Your task to perform on an android device: open app "LinkedIn" (install if not already installed) Image 0: 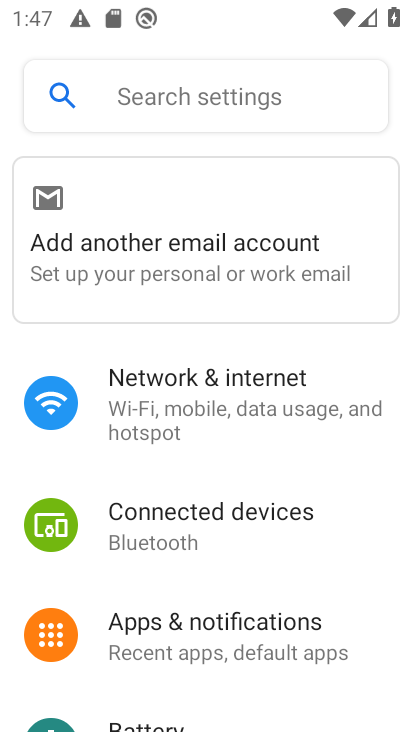
Step 0: press home button
Your task to perform on an android device: open app "LinkedIn" (install if not already installed) Image 1: 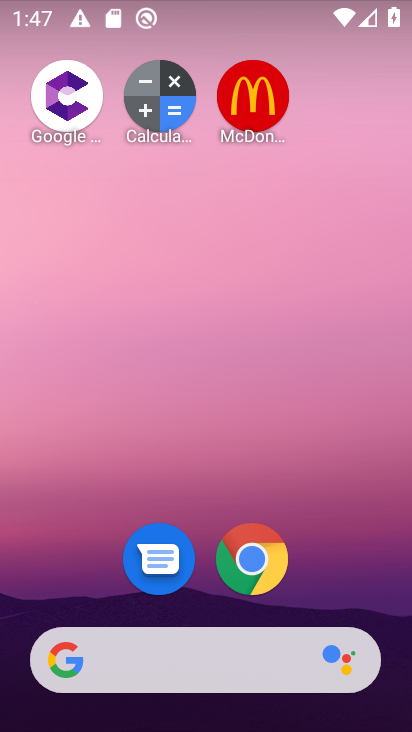
Step 1: drag from (215, 496) to (215, 165)
Your task to perform on an android device: open app "LinkedIn" (install if not already installed) Image 2: 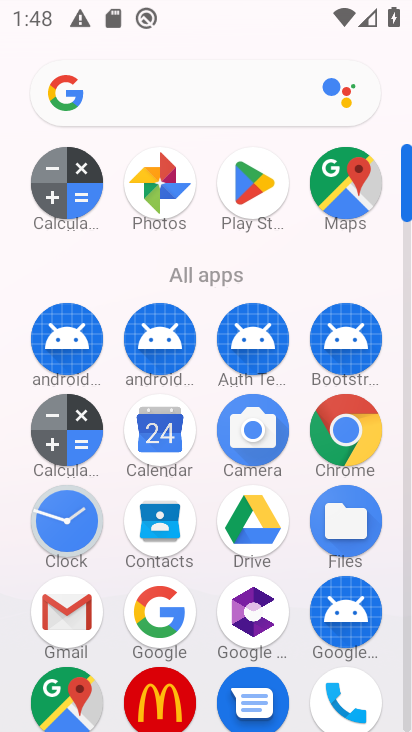
Step 2: click (254, 177)
Your task to perform on an android device: open app "LinkedIn" (install if not already installed) Image 3: 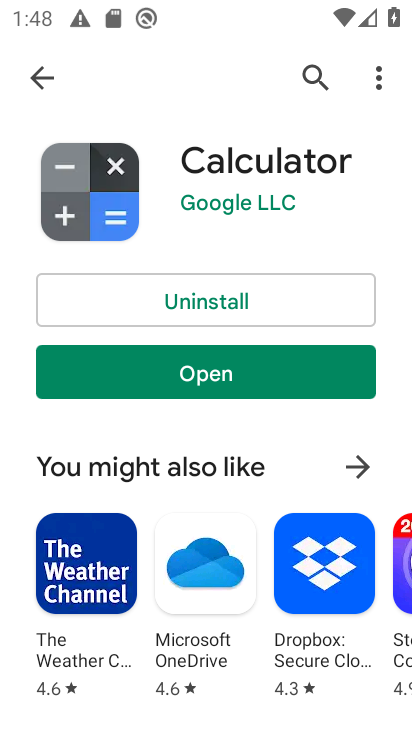
Step 3: click (310, 74)
Your task to perform on an android device: open app "LinkedIn" (install if not already installed) Image 4: 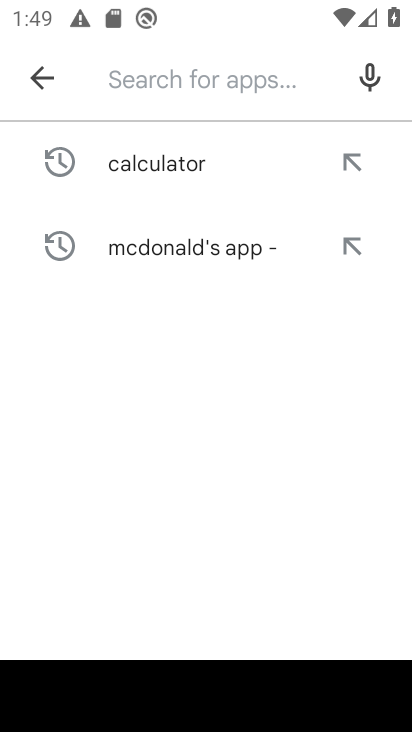
Step 4: type "LinkedIn"
Your task to perform on an android device: open app "LinkedIn" (install if not already installed) Image 5: 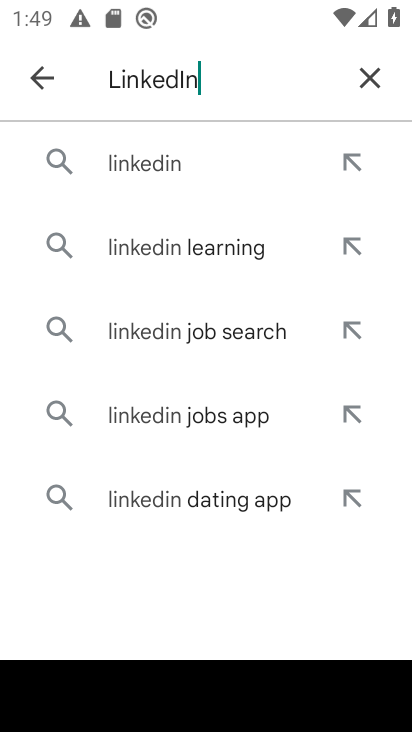
Step 5: click (176, 175)
Your task to perform on an android device: open app "LinkedIn" (install if not already installed) Image 6: 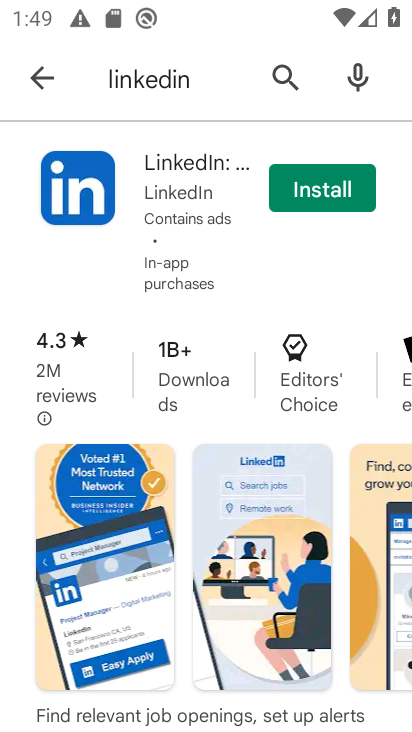
Step 6: click (321, 187)
Your task to perform on an android device: open app "LinkedIn" (install if not already installed) Image 7: 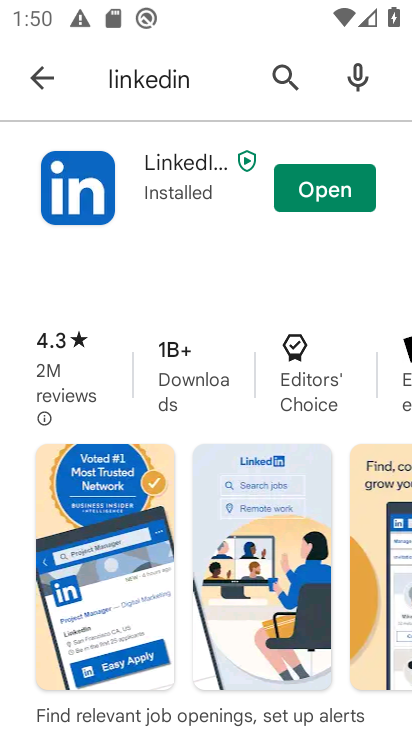
Step 7: click (313, 186)
Your task to perform on an android device: open app "LinkedIn" (install if not already installed) Image 8: 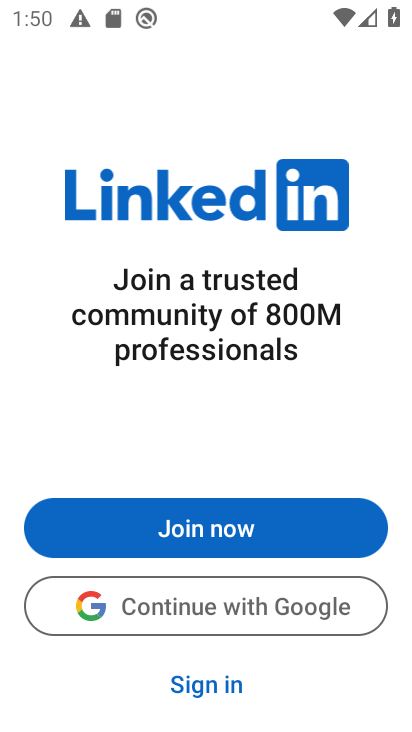
Step 8: task complete